Your task to perform on an android device: allow cookies in the chrome app Image 0: 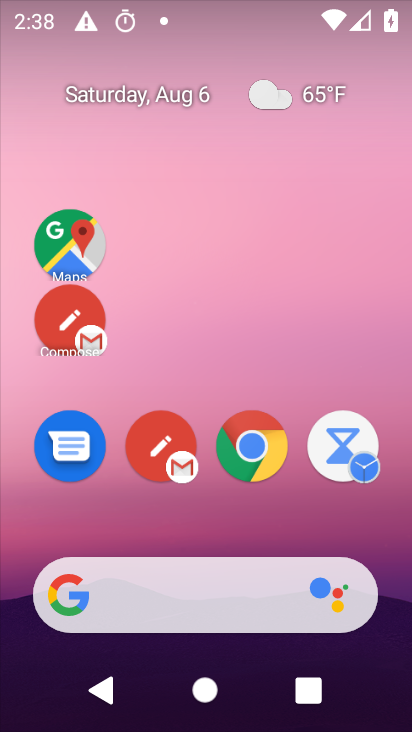
Step 0: drag from (298, 635) to (261, 173)
Your task to perform on an android device: allow cookies in the chrome app Image 1: 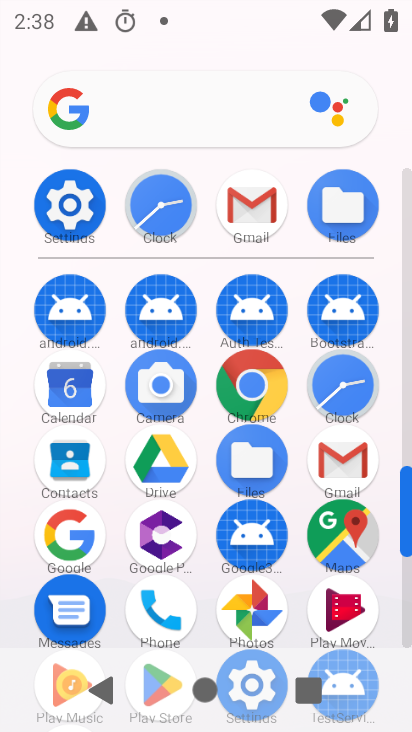
Step 1: click (254, 380)
Your task to perform on an android device: allow cookies in the chrome app Image 2: 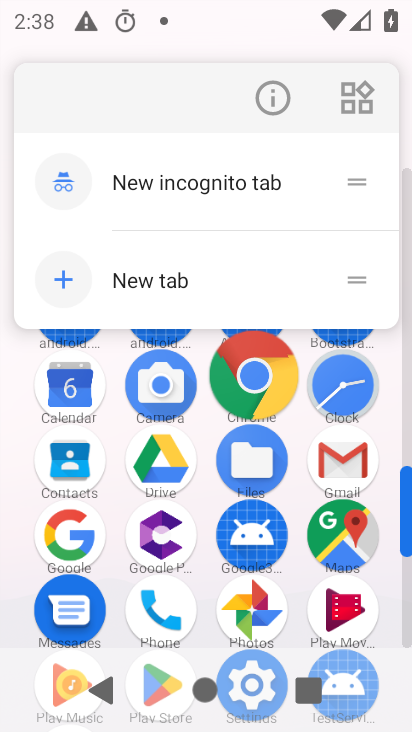
Step 2: click (256, 370)
Your task to perform on an android device: allow cookies in the chrome app Image 3: 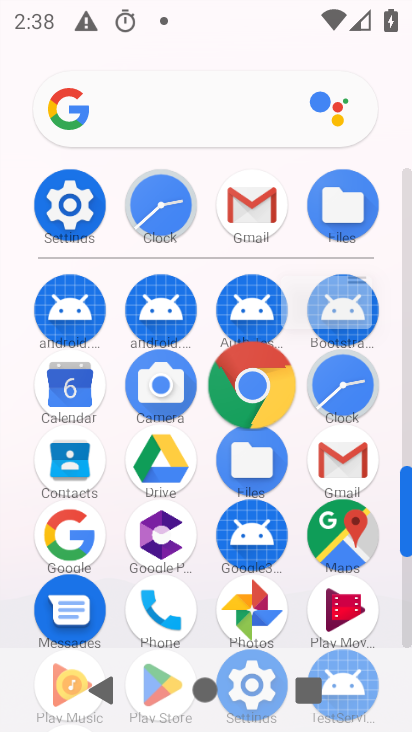
Step 3: click (259, 384)
Your task to perform on an android device: allow cookies in the chrome app Image 4: 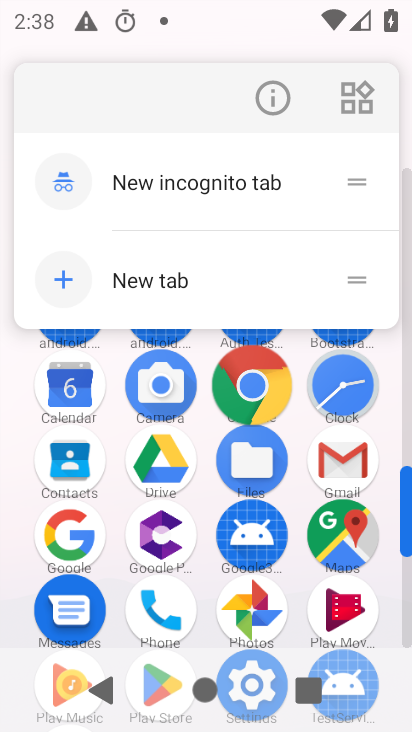
Step 4: click (260, 385)
Your task to perform on an android device: allow cookies in the chrome app Image 5: 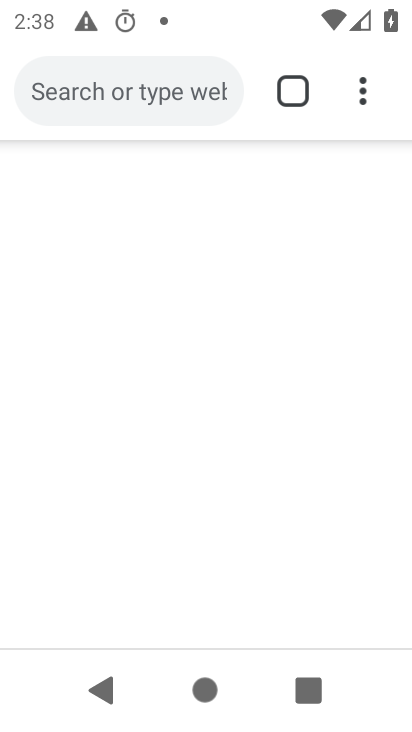
Step 5: click (260, 385)
Your task to perform on an android device: allow cookies in the chrome app Image 6: 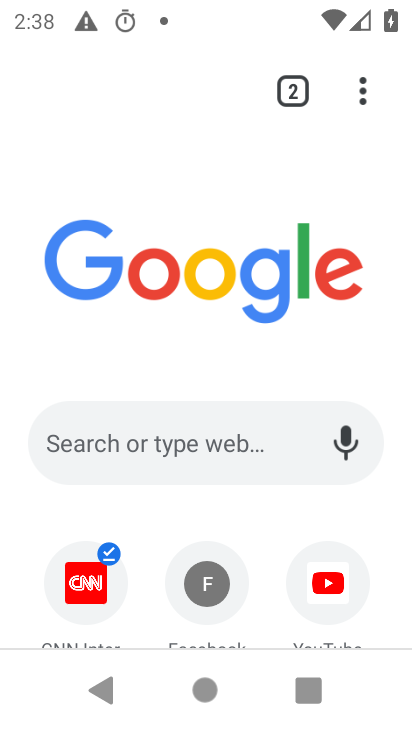
Step 6: drag from (360, 88) to (66, 466)
Your task to perform on an android device: allow cookies in the chrome app Image 7: 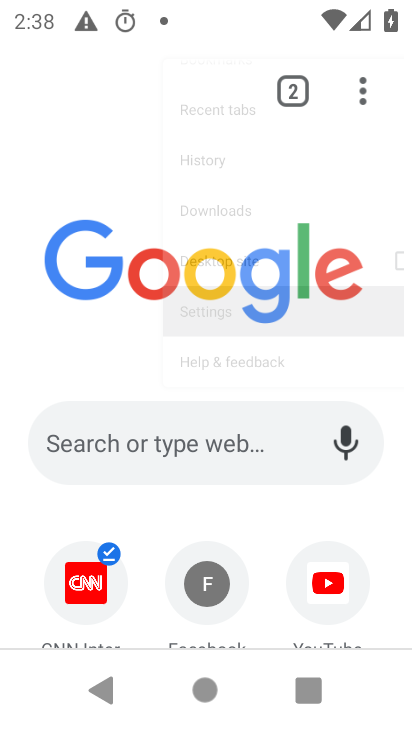
Step 7: click (66, 467)
Your task to perform on an android device: allow cookies in the chrome app Image 8: 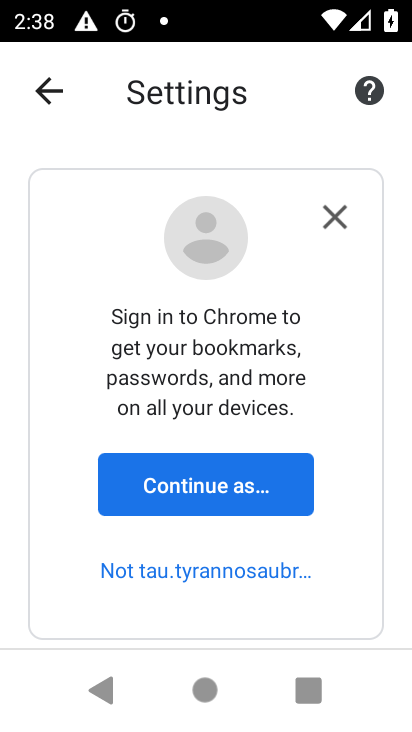
Step 8: click (340, 213)
Your task to perform on an android device: allow cookies in the chrome app Image 9: 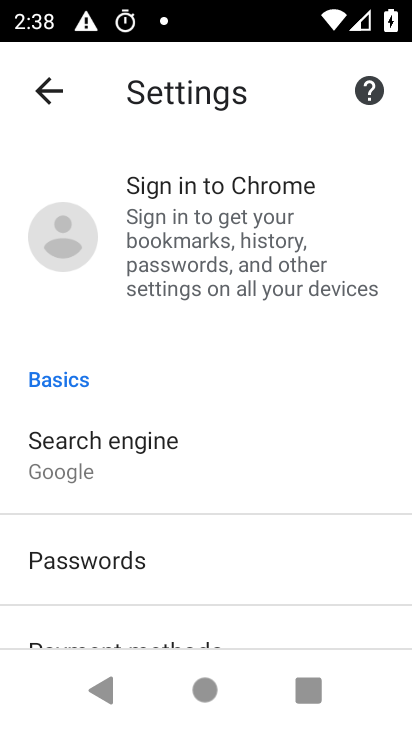
Step 9: drag from (147, 419) to (123, 117)
Your task to perform on an android device: allow cookies in the chrome app Image 10: 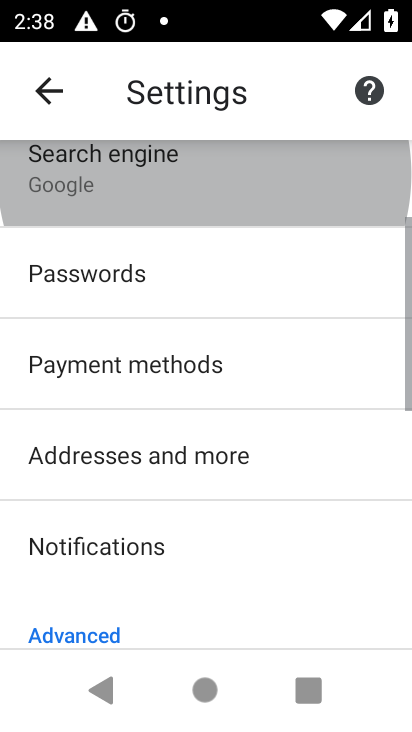
Step 10: drag from (169, 469) to (127, 194)
Your task to perform on an android device: allow cookies in the chrome app Image 11: 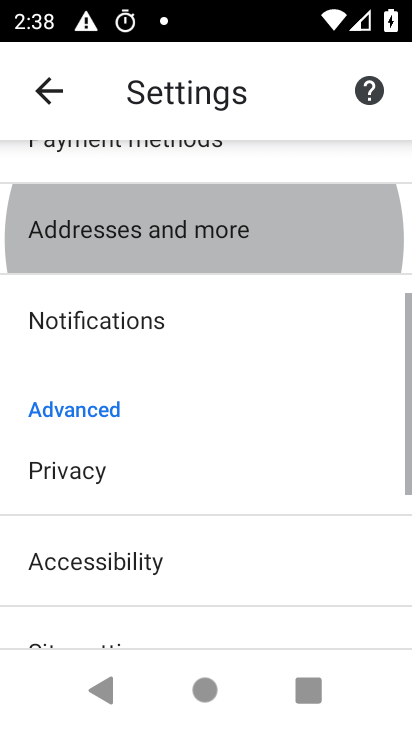
Step 11: drag from (166, 441) to (166, 142)
Your task to perform on an android device: allow cookies in the chrome app Image 12: 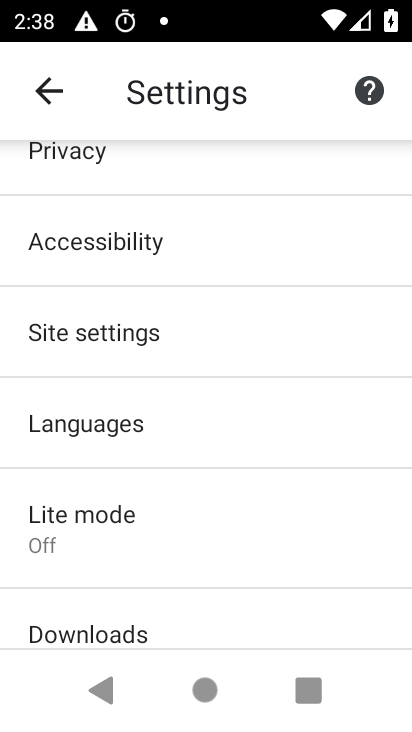
Step 12: click (75, 336)
Your task to perform on an android device: allow cookies in the chrome app Image 13: 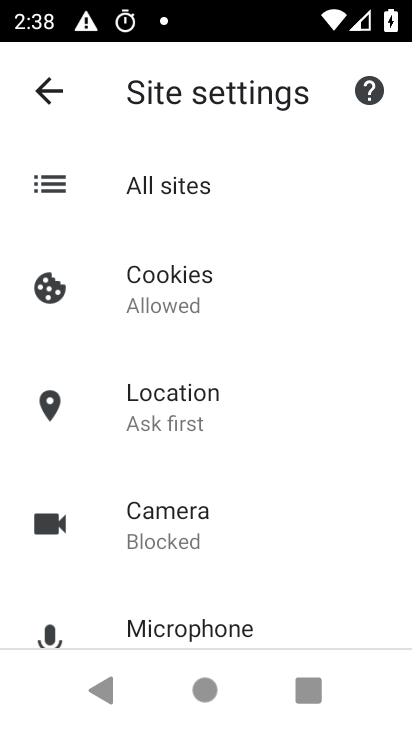
Step 13: click (157, 289)
Your task to perform on an android device: allow cookies in the chrome app Image 14: 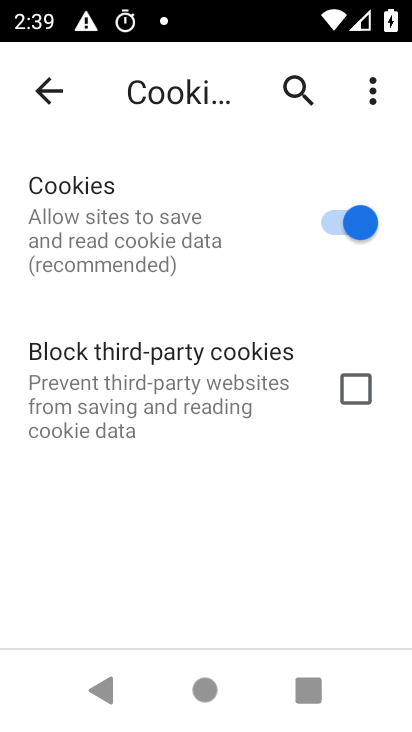
Step 14: task complete